Your task to perform on an android device: Do I have any events tomorrow? Image 0: 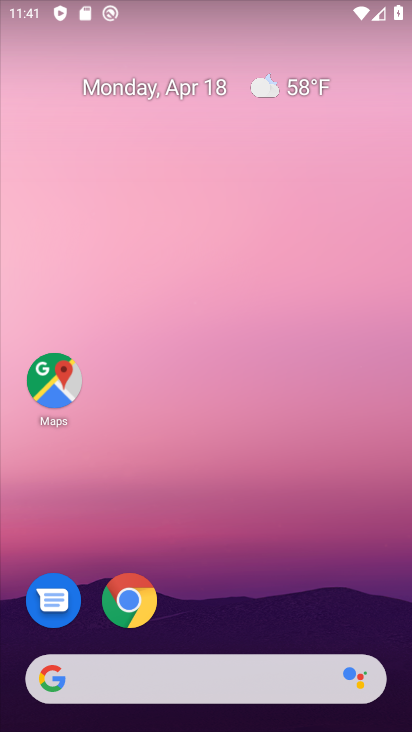
Step 0: drag from (187, 703) to (262, 338)
Your task to perform on an android device: Do I have any events tomorrow? Image 1: 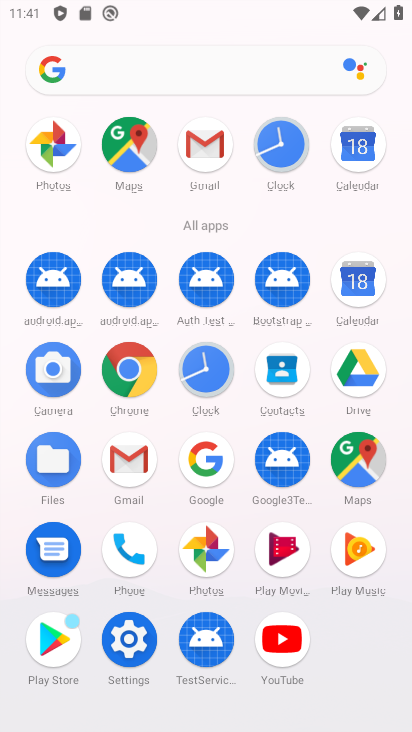
Step 1: click (359, 273)
Your task to perform on an android device: Do I have any events tomorrow? Image 2: 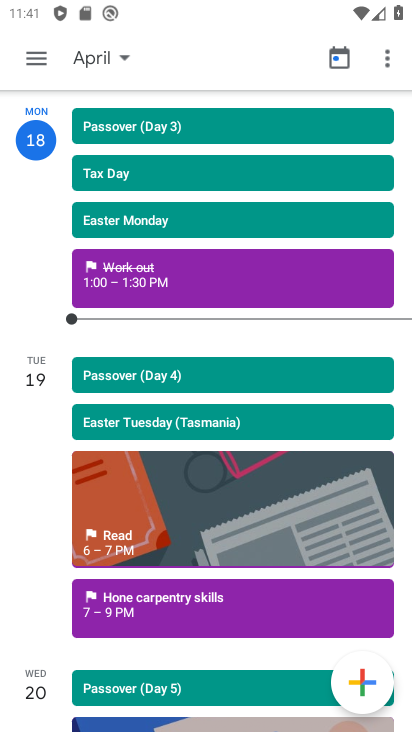
Step 2: click (36, 72)
Your task to perform on an android device: Do I have any events tomorrow? Image 3: 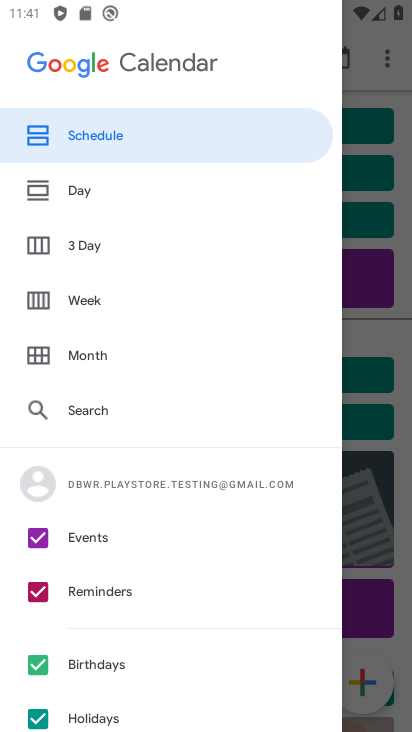
Step 3: click (78, 244)
Your task to perform on an android device: Do I have any events tomorrow? Image 4: 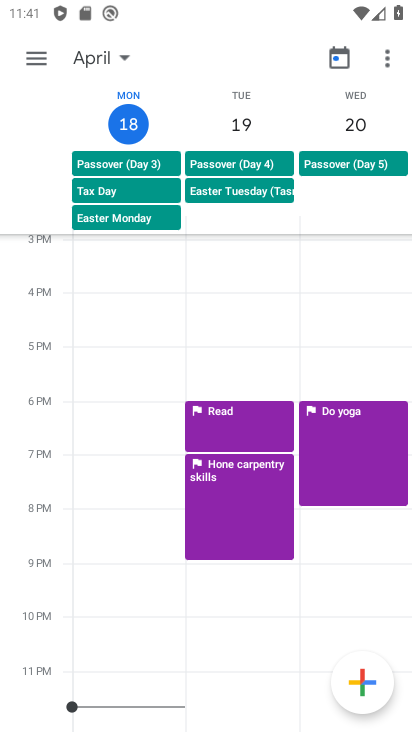
Step 4: click (237, 123)
Your task to perform on an android device: Do I have any events tomorrow? Image 5: 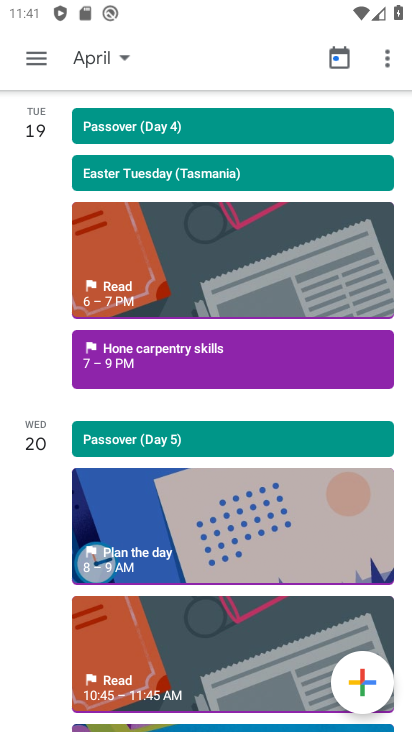
Step 5: task complete